Your task to perform on an android device: Open calendar and show me the first week of next month Image 0: 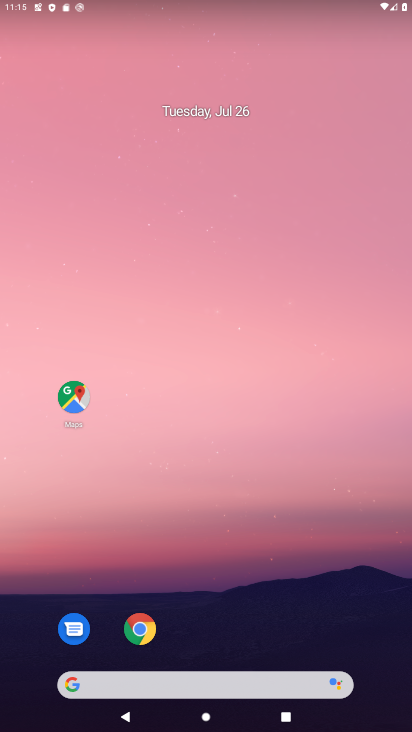
Step 0: drag from (250, 659) to (221, 192)
Your task to perform on an android device: Open calendar and show me the first week of next month Image 1: 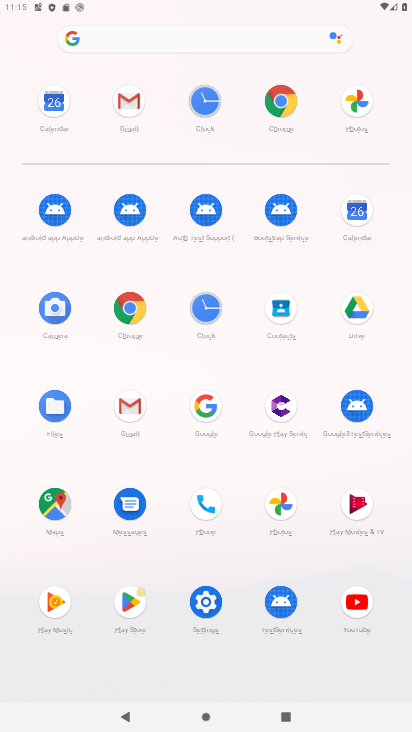
Step 1: click (356, 226)
Your task to perform on an android device: Open calendar and show me the first week of next month Image 2: 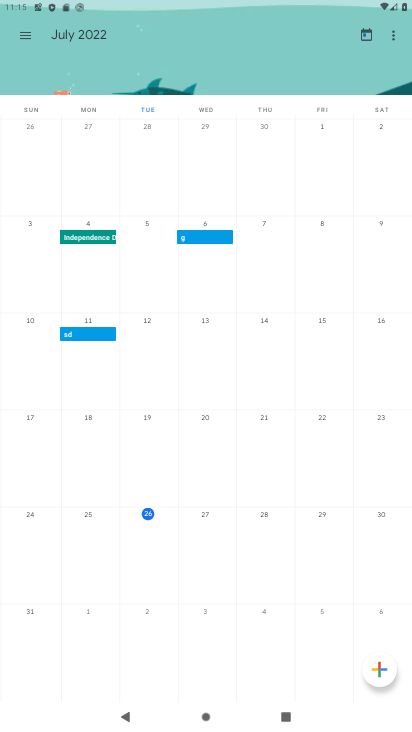
Step 2: task complete